Your task to perform on an android device: What's on my calendar today? Image 0: 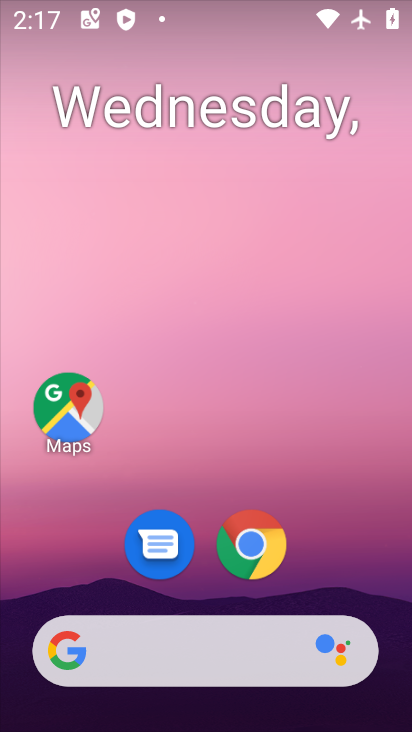
Step 0: drag from (370, 563) to (350, 104)
Your task to perform on an android device: What's on my calendar today? Image 1: 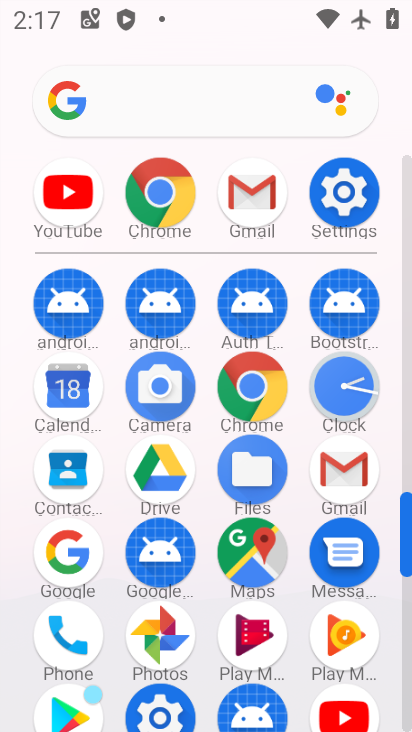
Step 1: click (64, 390)
Your task to perform on an android device: What's on my calendar today? Image 2: 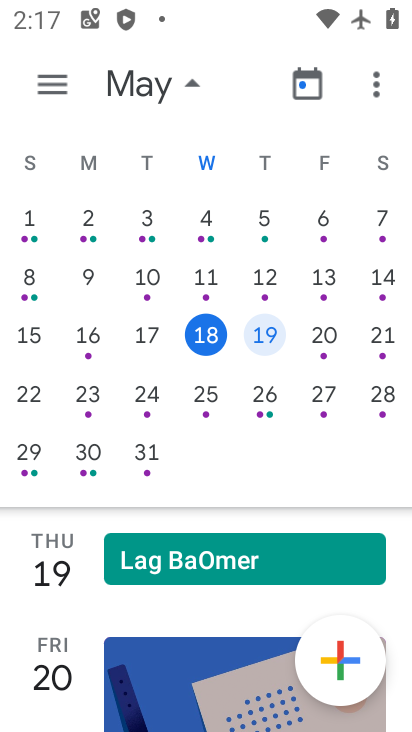
Step 2: task complete